Your task to perform on an android device: Go to Reddit.com Image 0: 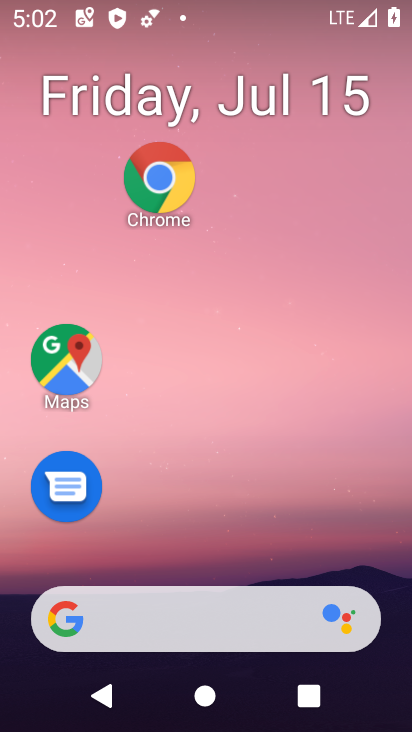
Step 0: click (154, 185)
Your task to perform on an android device: Go to Reddit.com Image 1: 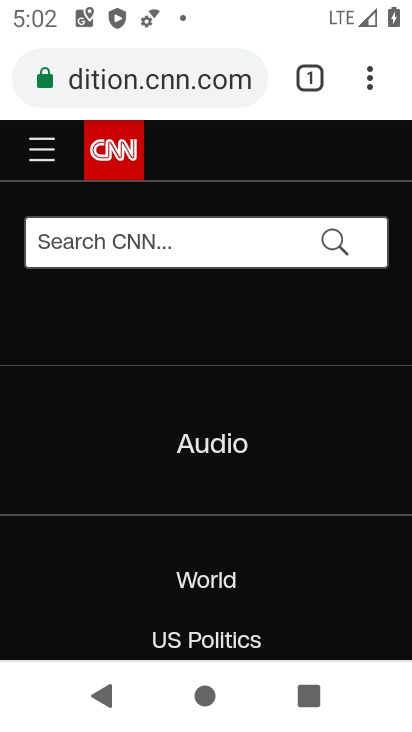
Step 1: click (171, 80)
Your task to perform on an android device: Go to Reddit.com Image 2: 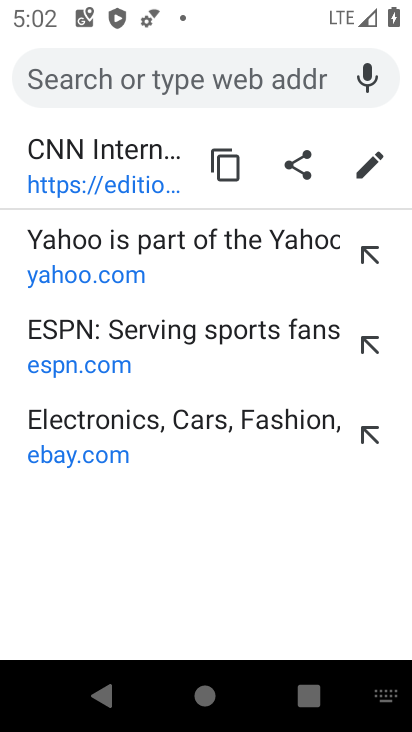
Step 2: click (139, 80)
Your task to perform on an android device: Go to Reddit.com Image 3: 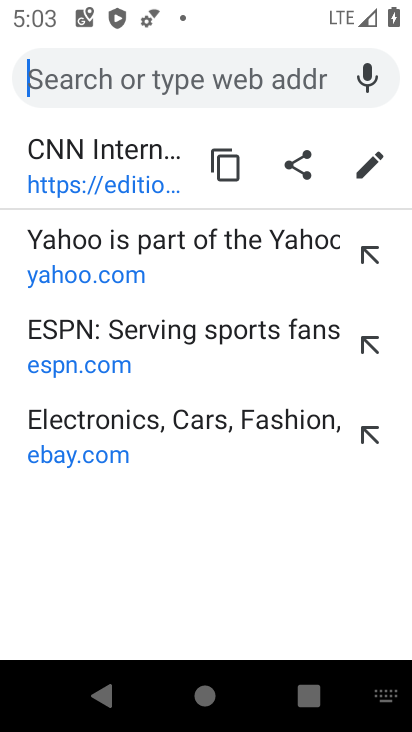
Step 3: type "www.reddit.com"
Your task to perform on an android device: Go to Reddit.com Image 4: 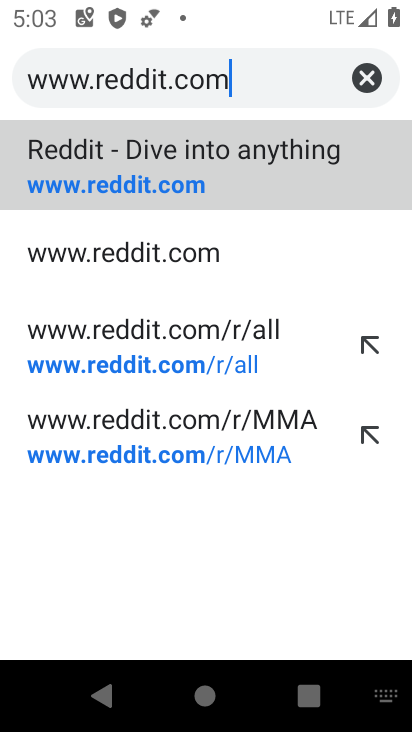
Step 4: click (103, 180)
Your task to perform on an android device: Go to Reddit.com Image 5: 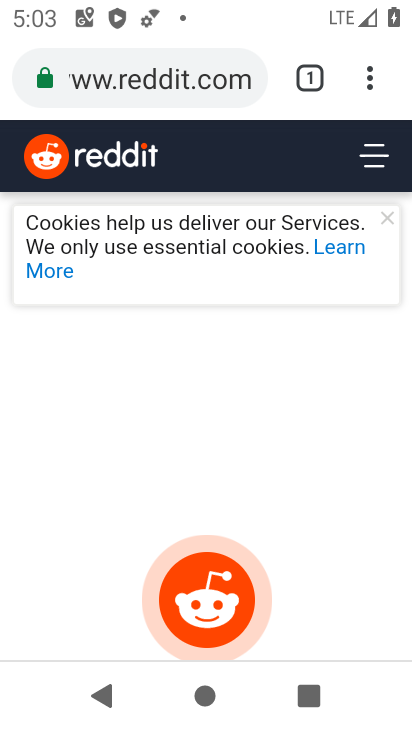
Step 5: task complete